Your task to perform on an android device: change notification settings in the gmail app Image 0: 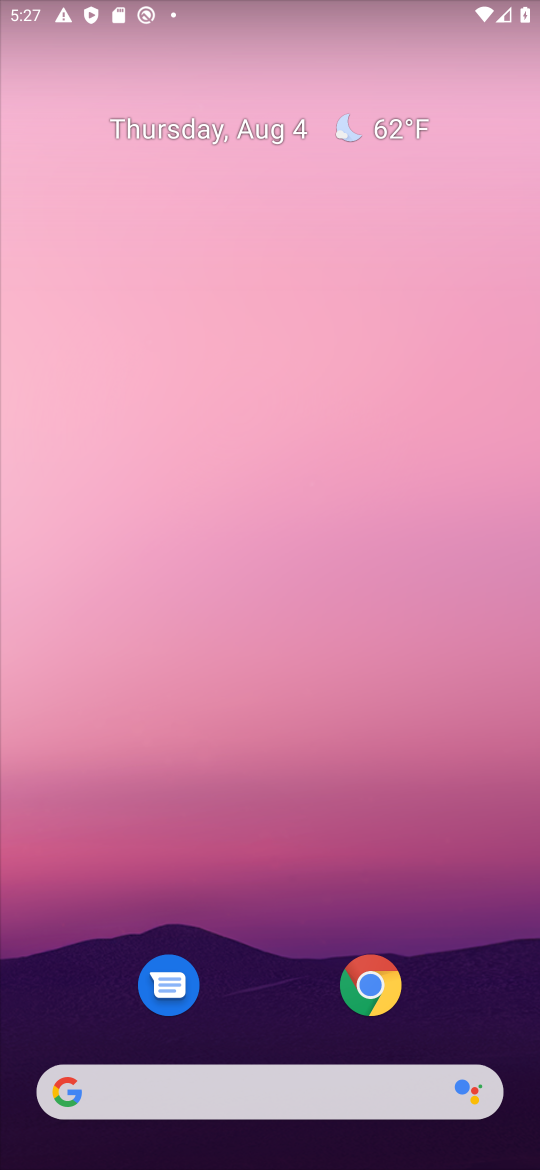
Step 0: drag from (271, 1079) to (324, 461)
Your task to perform on an android device: change notification settings in the gmail app Image 1: 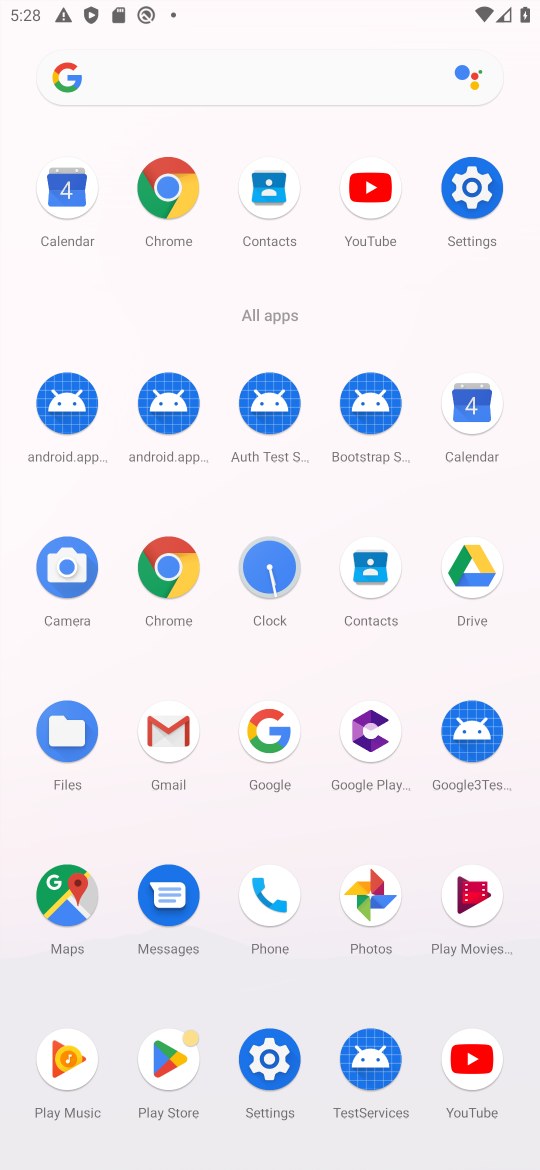
Step 1: click (173, 721)
Your task to perform on an android device: change notification settings in the gmail app Image 2: 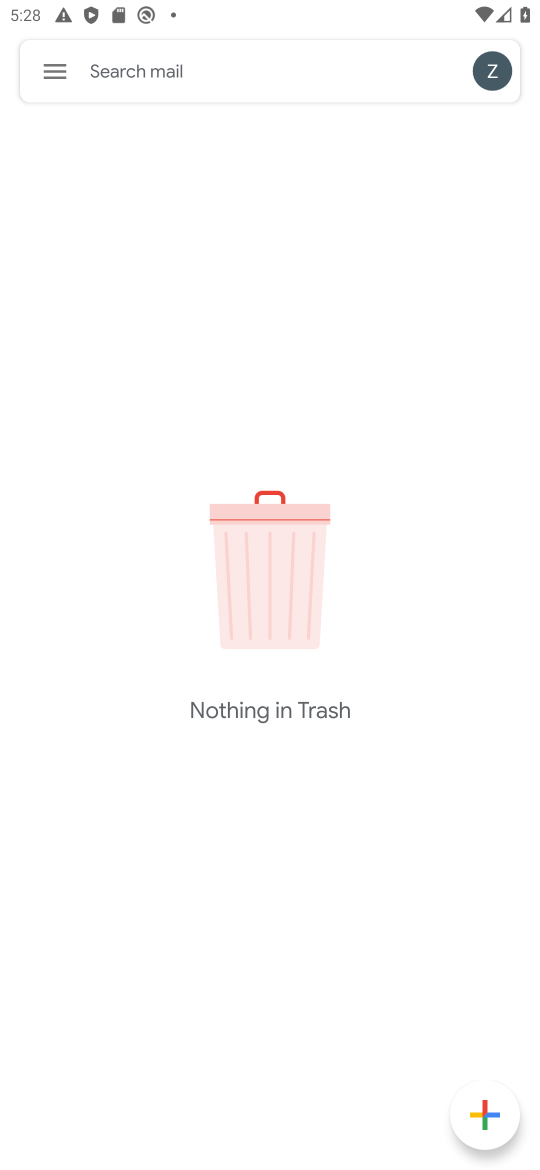
Step 2: click (63, 77)
Your task to perform on an android device: change notification settings in the gmail app Image 3: 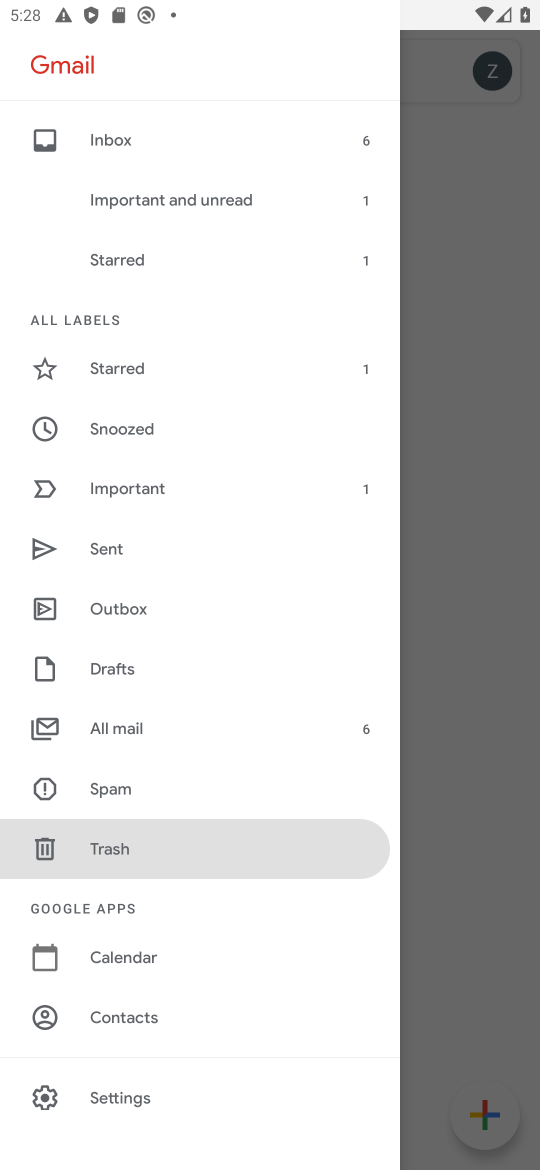
Step 3: click (141, 1089)
Your task to perform on an android device: change notification settings in the gmail app Image 4: 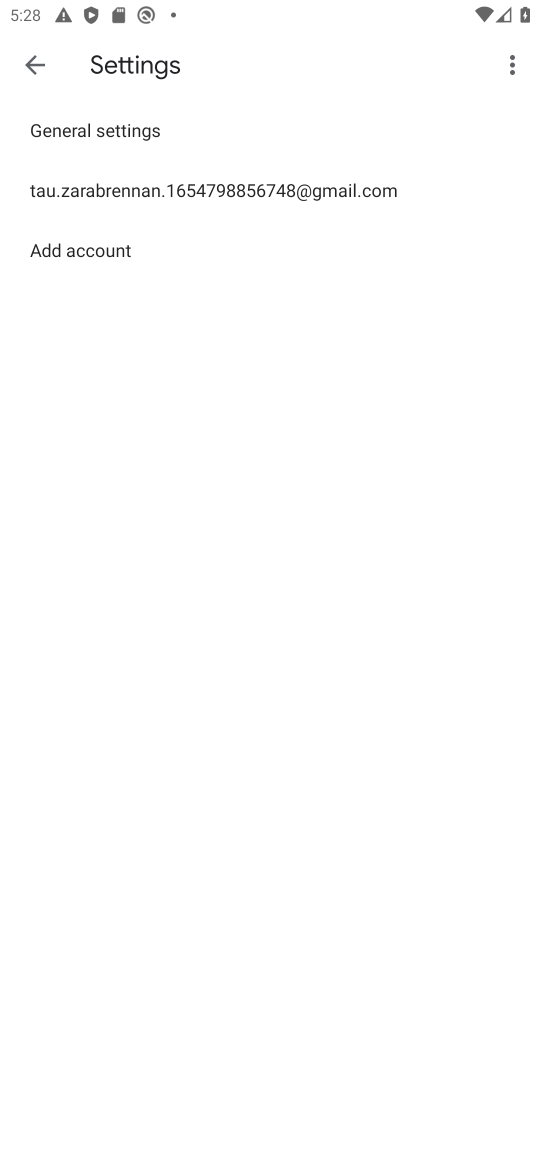
Step 4: click (152, 184)
Your task to perform on an android device: change notification settings in the gmail app Image 5: 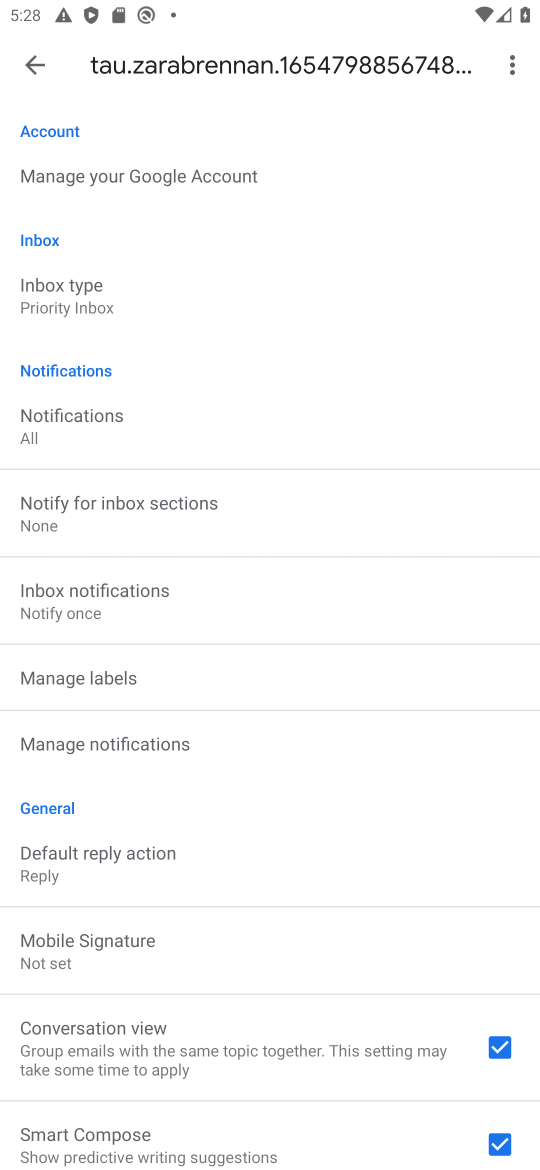
Step 5: click (166, 735)
Your task to perform on an android device: change notification settings in the gmail app Image 6: 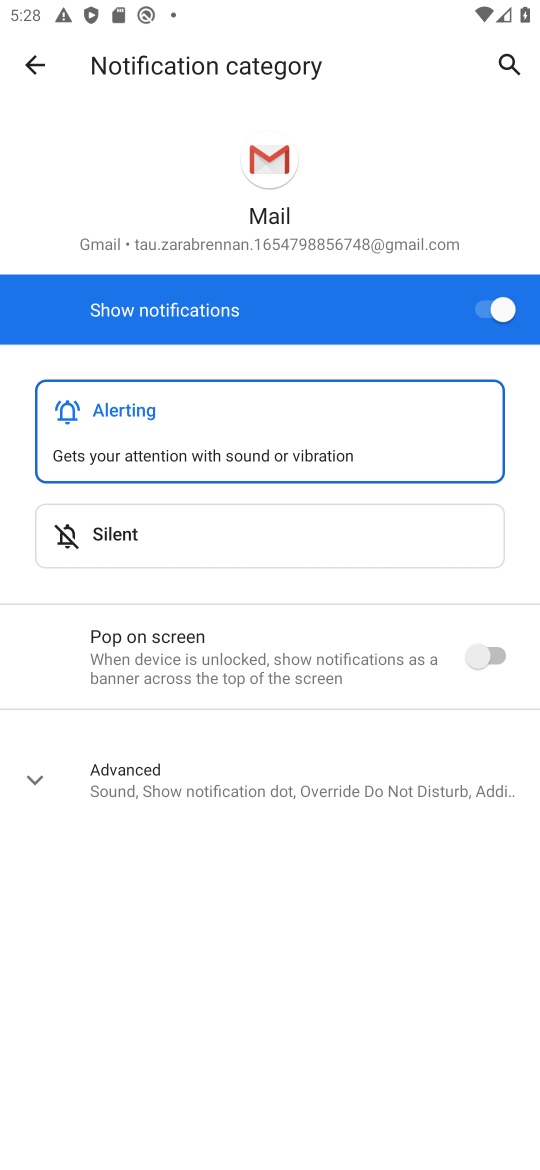
Step 6: click (201, 532)
Your task to perform on an android device: change notification settings in the gmail app Image 7: 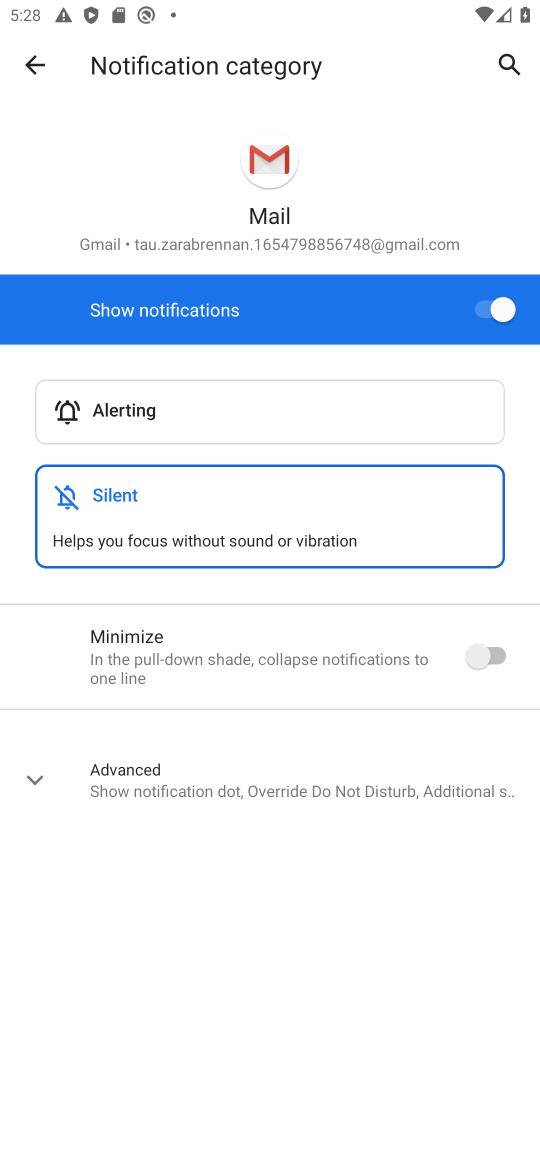
Step 7: task complete